Your task to perform on an android device: manage bookmarks in the chrome app Image 0: 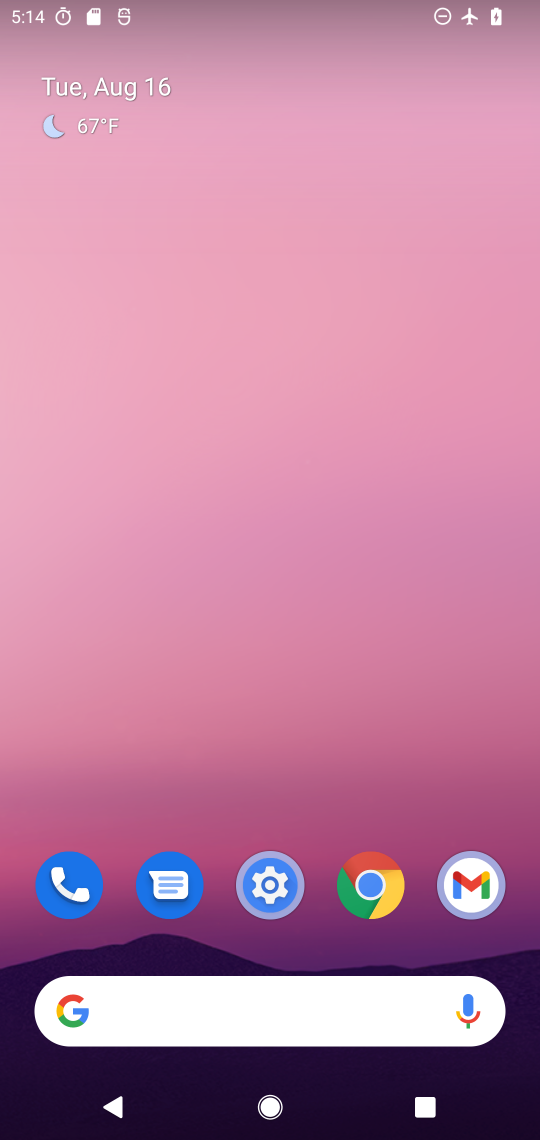
Step 0: click (391, 905)
Your task to perform on an android device: manage bookmarks in the chrome app Image 1: 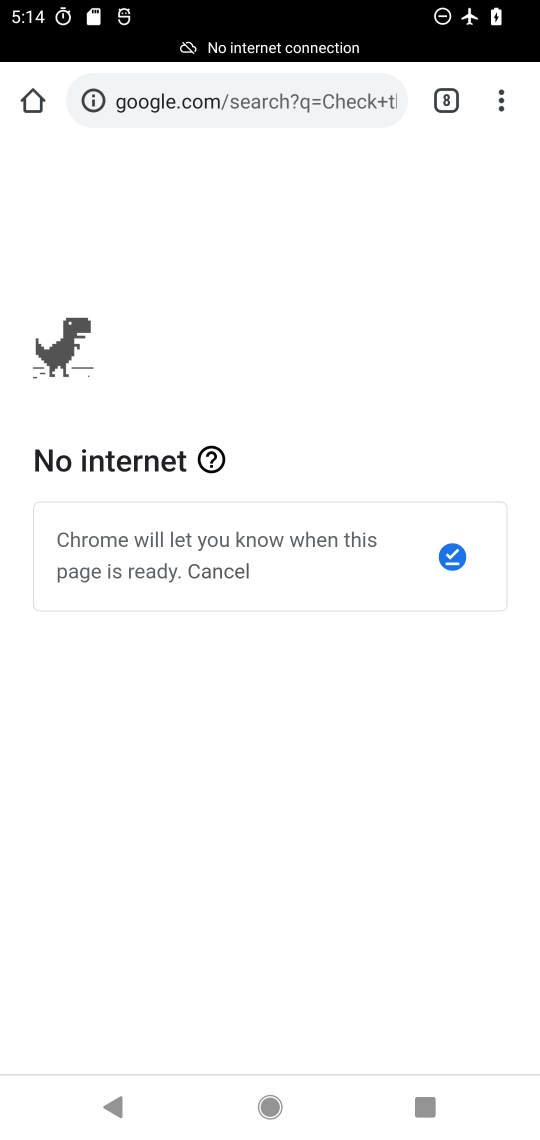
Step 1: click (497, 83)
Your task to perform on an android device: manage bookmarks in the chrome app Image 2: 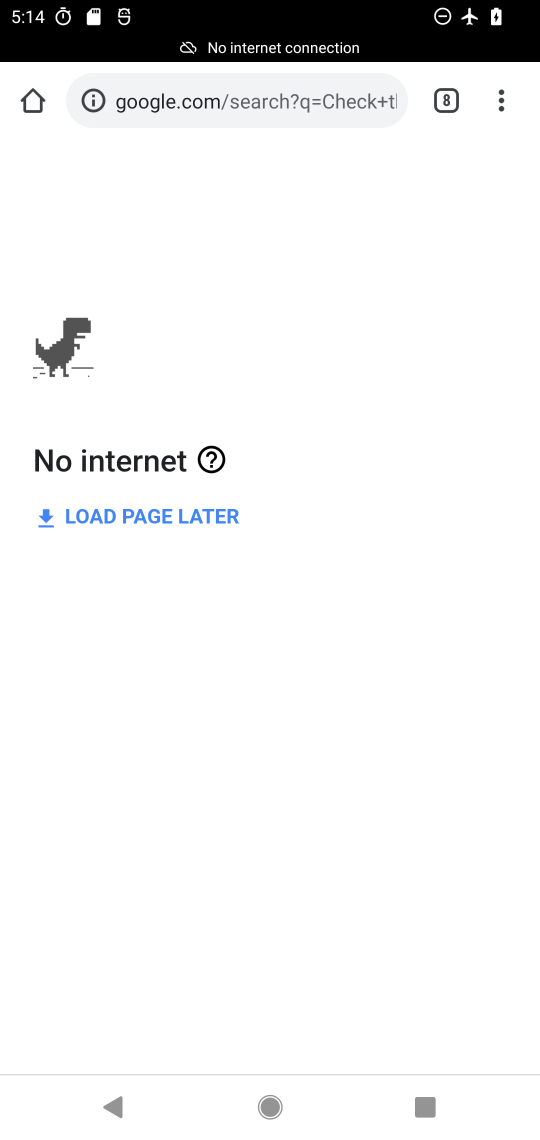
Step 2: click (513, 111)
Your task to perform on an android device: manage bookmarks in the chrome app Image 3: 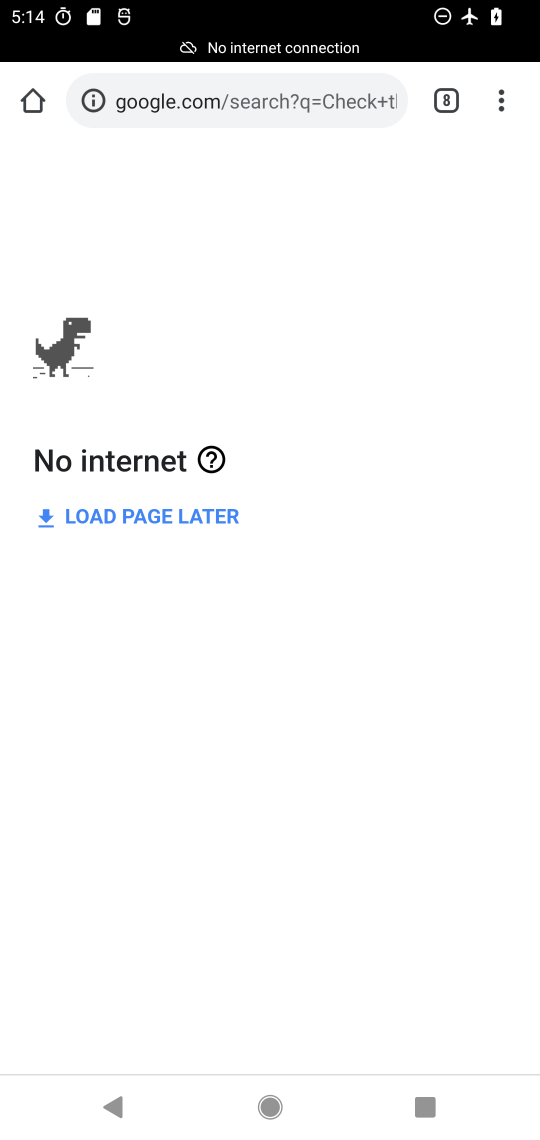
Step 3: click (515, 103)
Your task to perform on an android device: manage bookmarks in the chrome app Image 4: 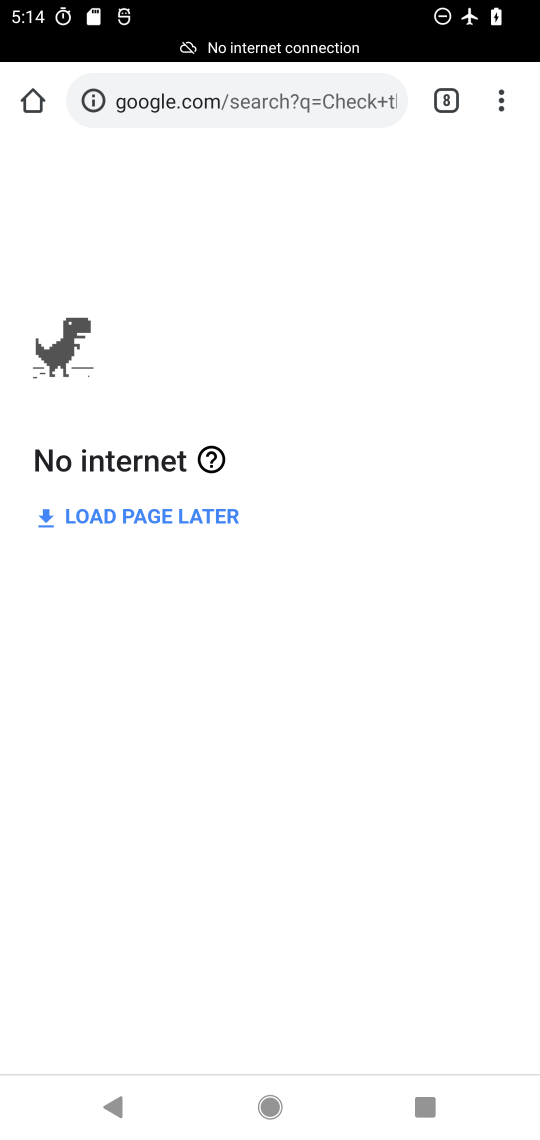
Step 4: click (515, 103)
Your task to perform on an android device: manage bookmarks in the chrome app Image 5: 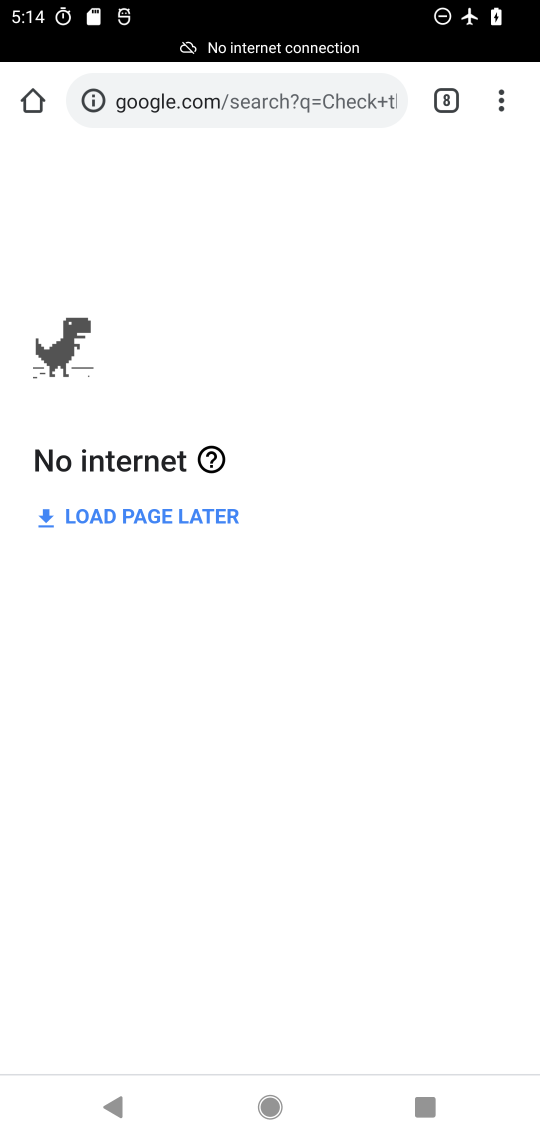
Step 5: click (494, 97)
Your task to perform on an android device: manage bookmarks in the chrome app Image 6: 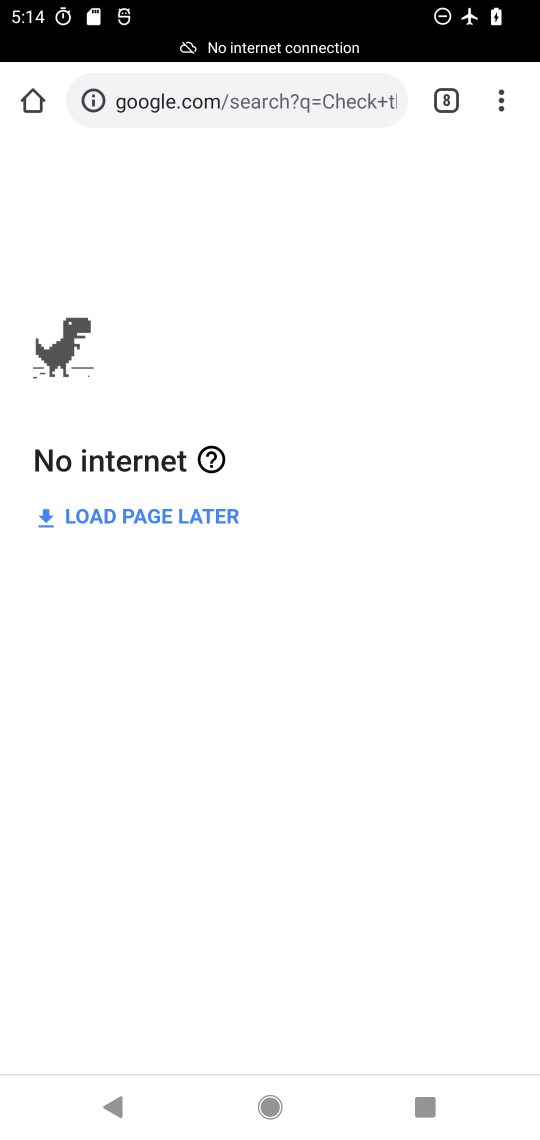
Step 6: click (498, 100)
Your task to perform on an android device: manage bookmarks in the chrome app Image 7: 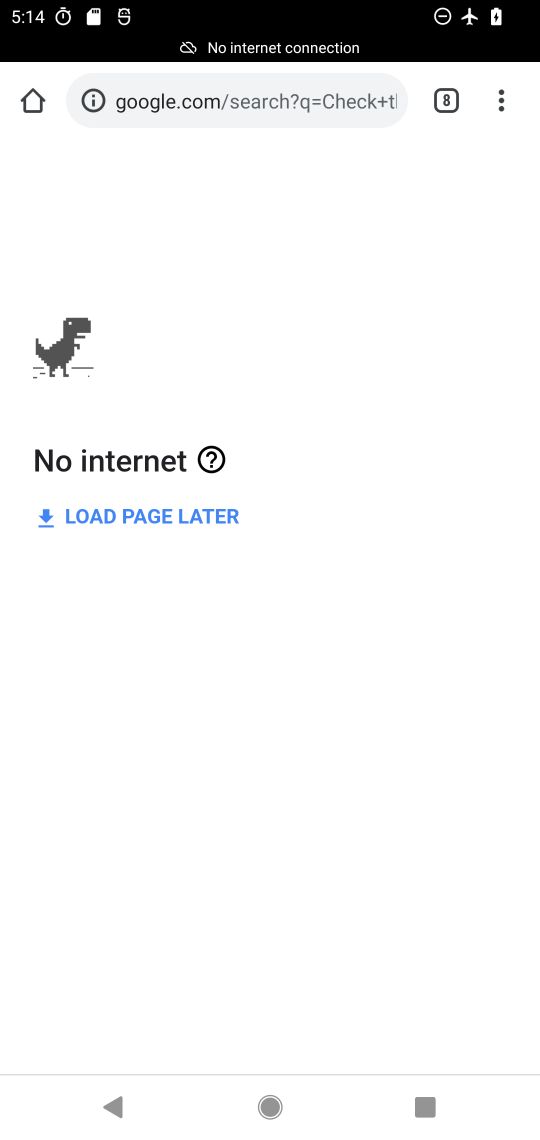
Step 7: click (489, 91)
Your task to perform on an android device: manage bookmarks in the chrome app Image 8: 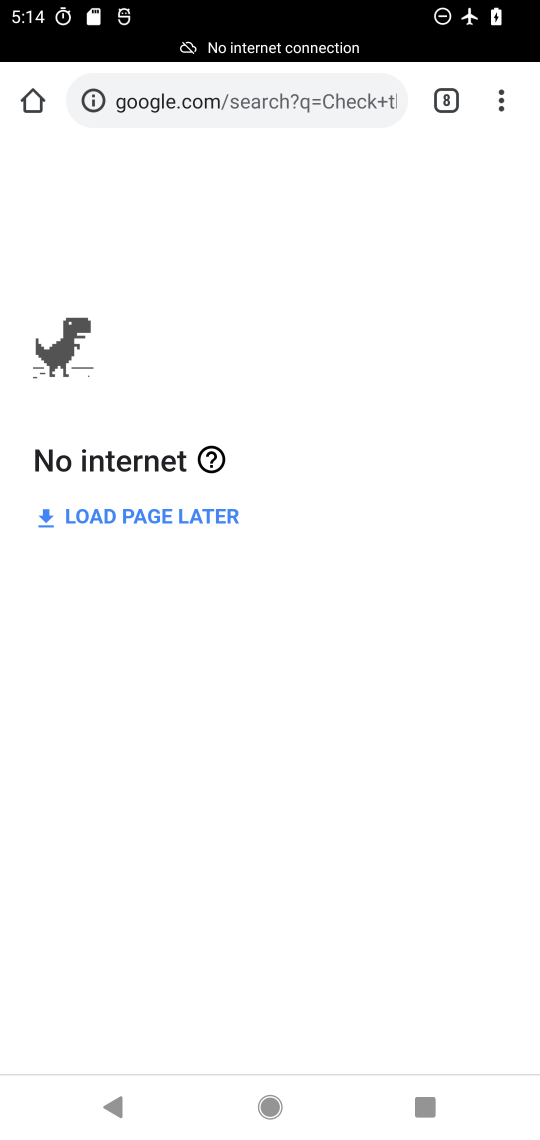
Step 8: click (478, 91)
Your task to perform on an android device: manage bookmarks in the chrome app Image 9: 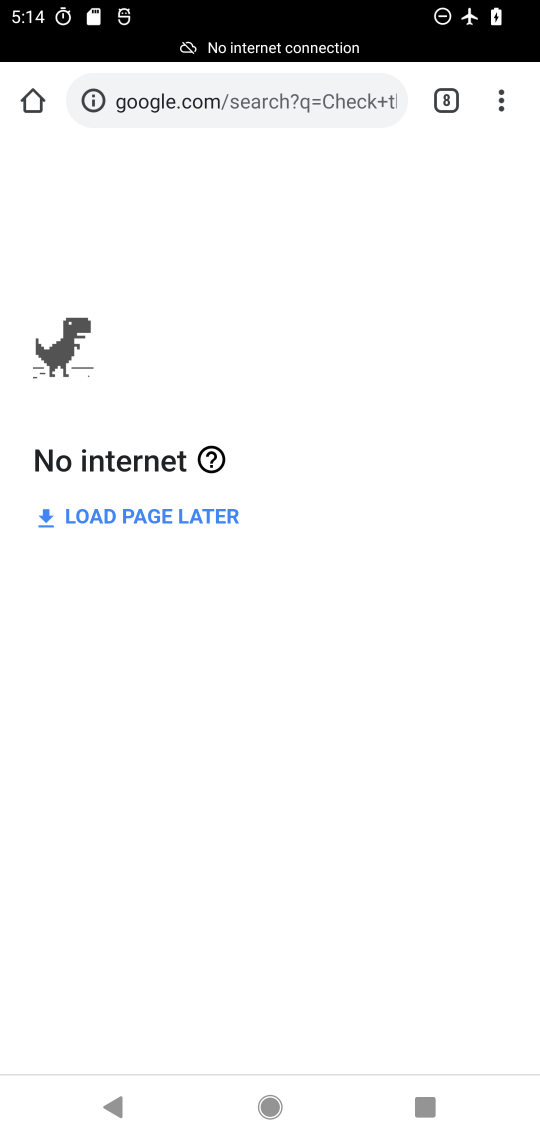
Step 9: click (499, 102)
Your task to perform on an android device: manage bookmarks in the chrome app Image 10: 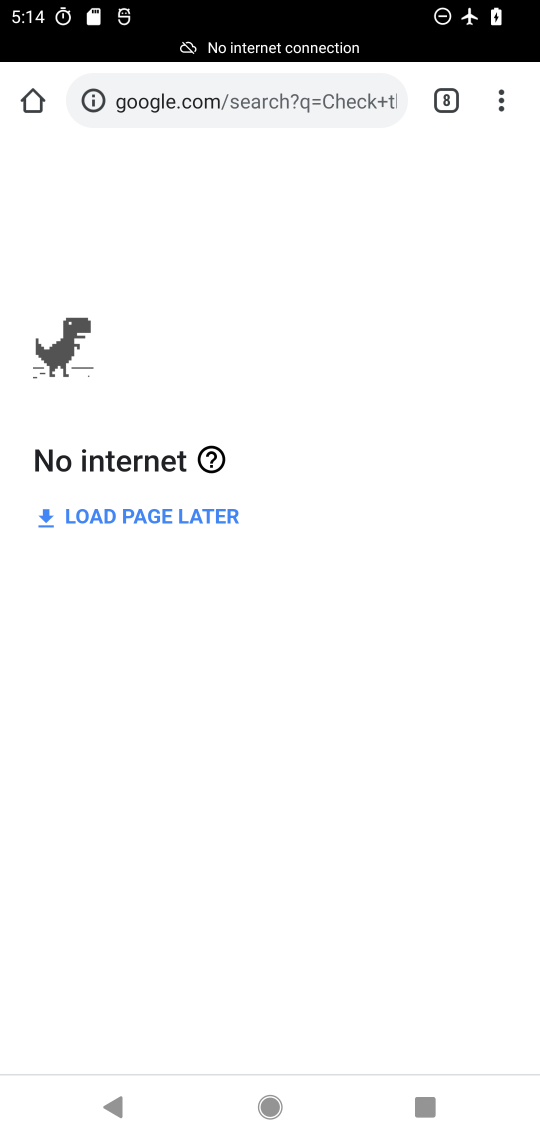
Step 10: click (499, 102)
Your task to perform on an android device: manage bookmarks in the chrome app Image 11: 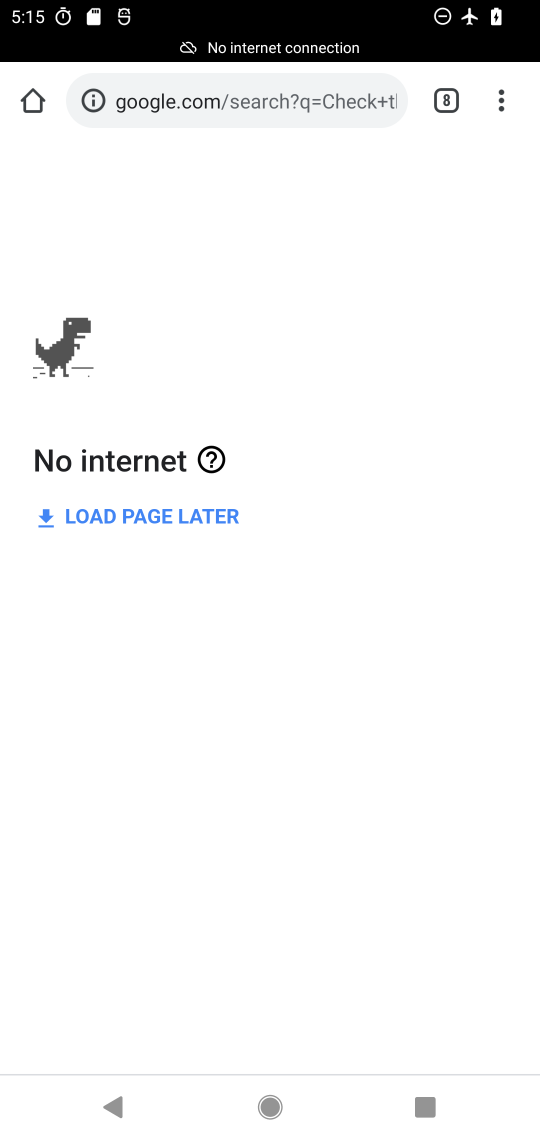
Step 11: click (486, 94)
Your task to perform on an android device: manage bookmarks in the chrome app Image 12: 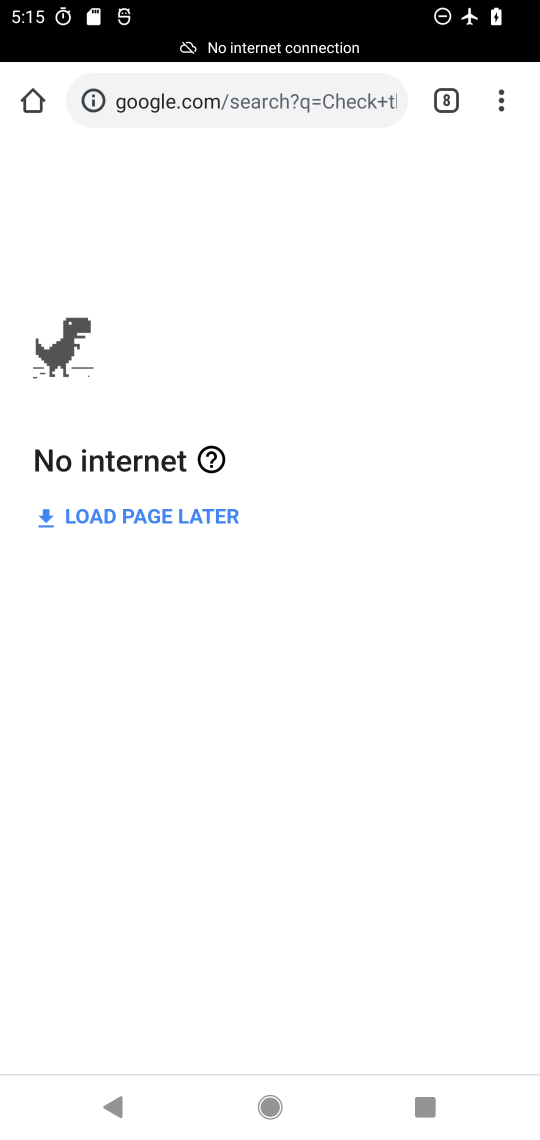
Step 12: click (486, 94)
Your task to perform on an android device: manage bookmarks in the chrome app Image 13: 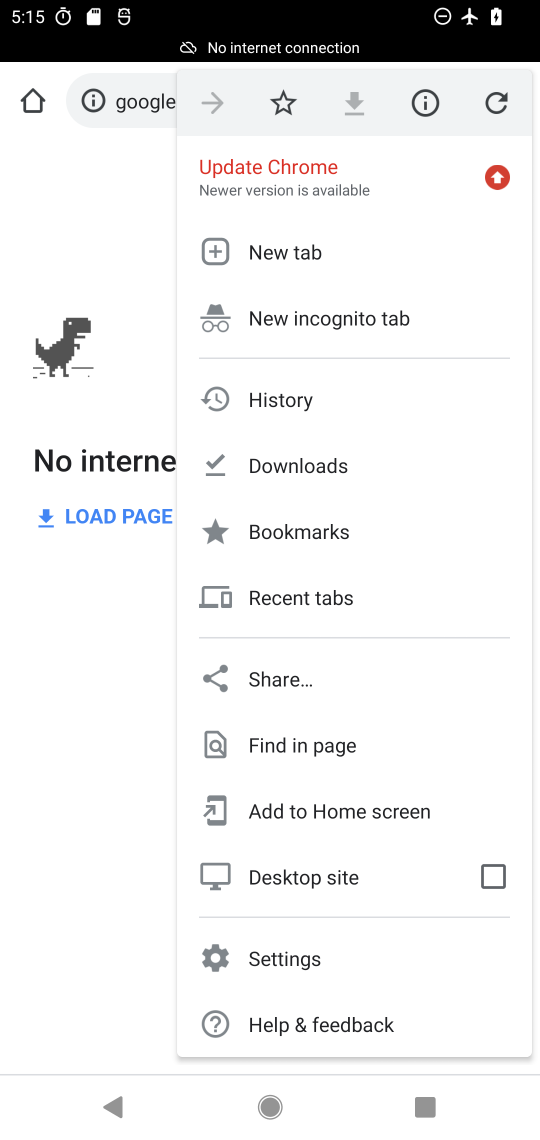
Step 13: click (328, 519)
Your task to perform on an android device: manage bookmarks in the chrome app Image 14: 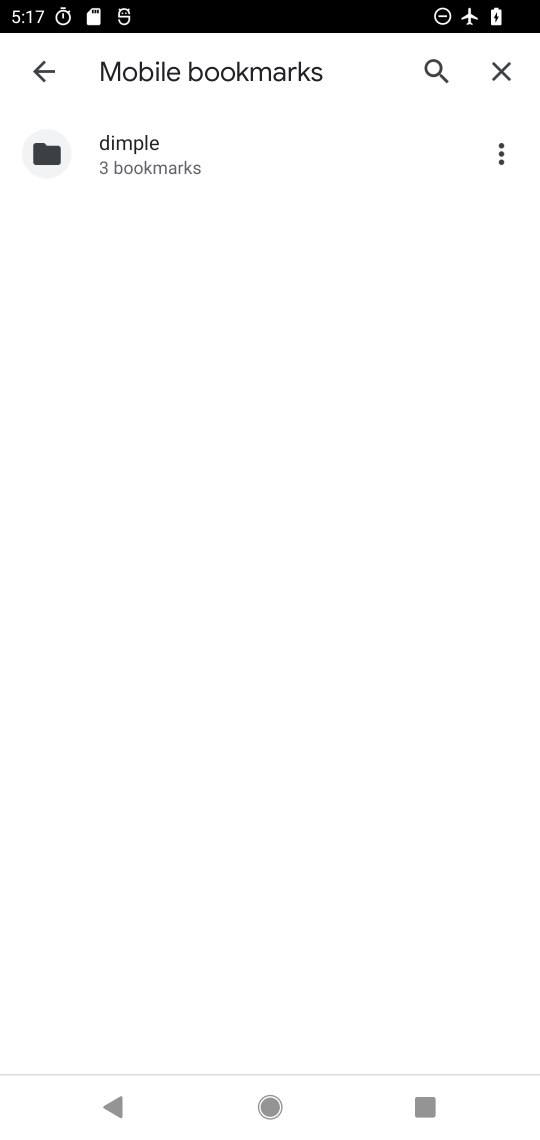
Step 14: task complete